Your task to perform on an android device: What is the recent news? Image 0: 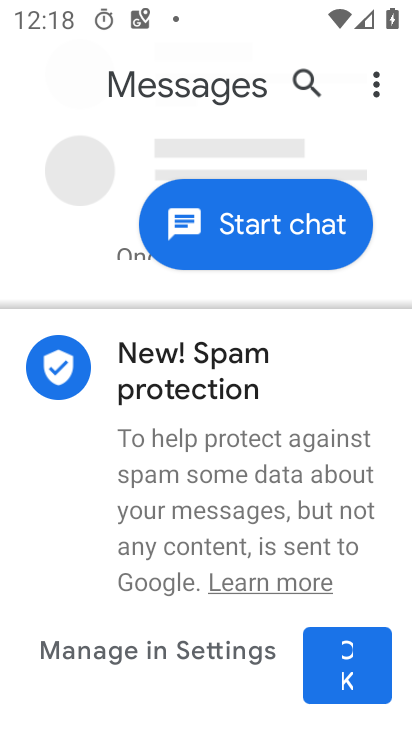
Step 0: press home button
Your task to perform on an android device: What is the recent news? Image 1: 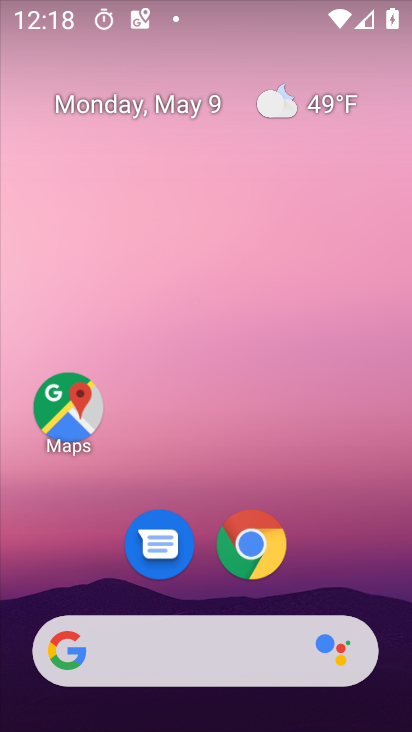
Step 1: drag from (318, 621) to (321, 0)
Your task to perform on an android device: What is the recent news? Image 2: 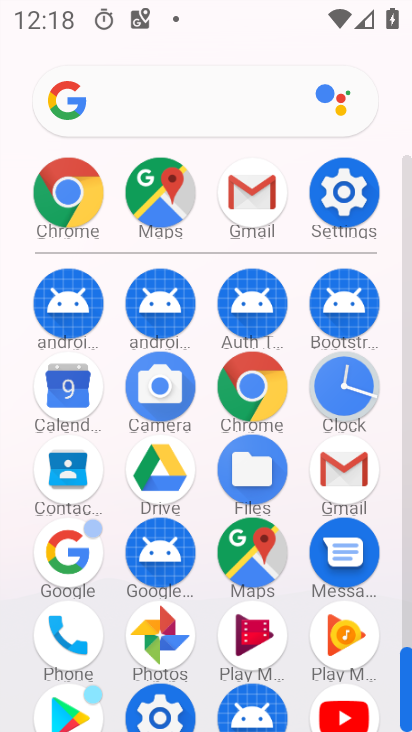
Step 2: click (256, 393)
Your task to perform on an android device: What is the recent news? Image 3: 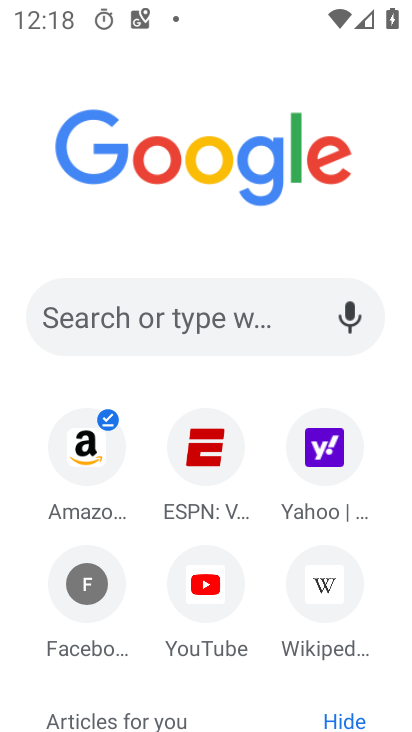
Step 3: click (215, 320)
Your task to perform on an android device: What is the recent news? Image 4: 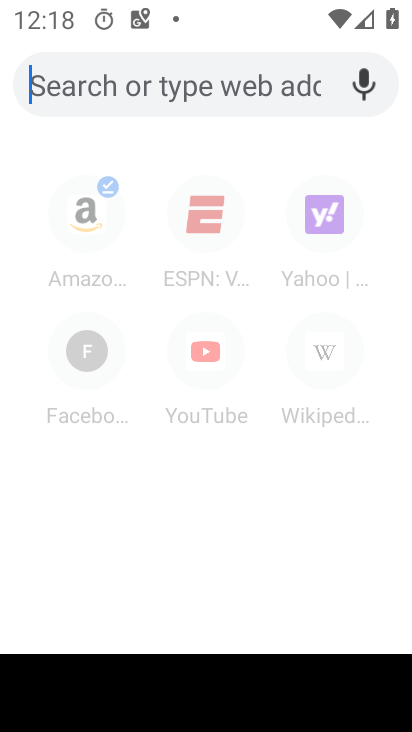
Step 4: type "recent news"
Your task to perform on an android device: What is the recent news? Image 5: 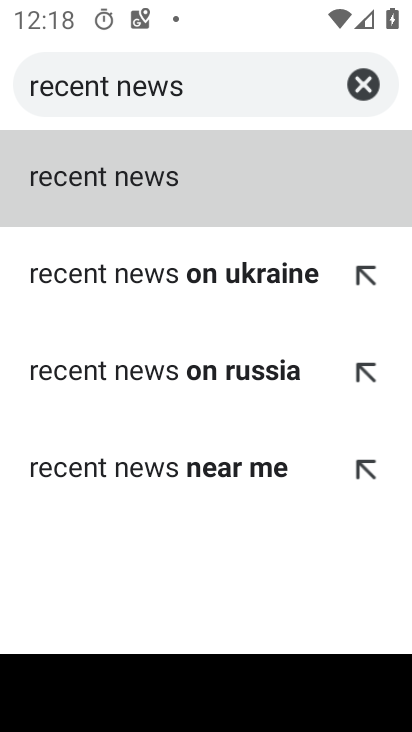
Step 5: click (189, 194)
Your task to perform on an android device: What is the recent news? Image 6: 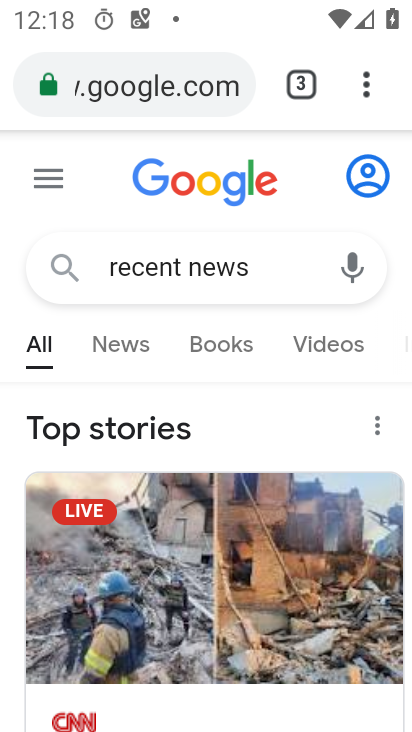
Step 6: task complete